Your task to perform on an android device: Turn on the flashlight Image 0: 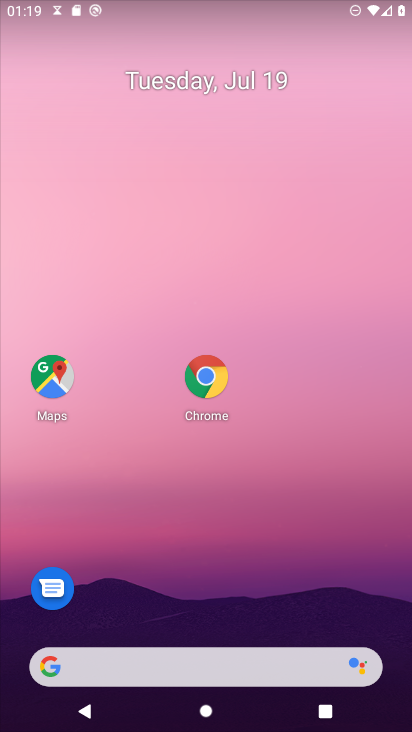
Step 0: press home button
Your task to perform on an android device: Turn on the flashlight Image 1: 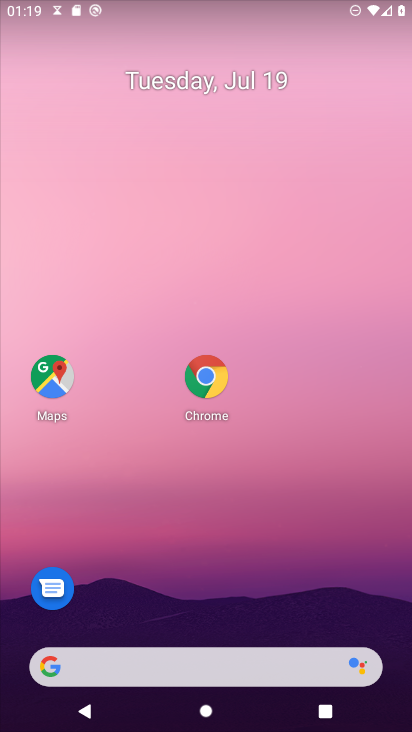
Step 1: task complete